Your task to perform on an android device: Set the phone to "Do not disturb". Image 0: 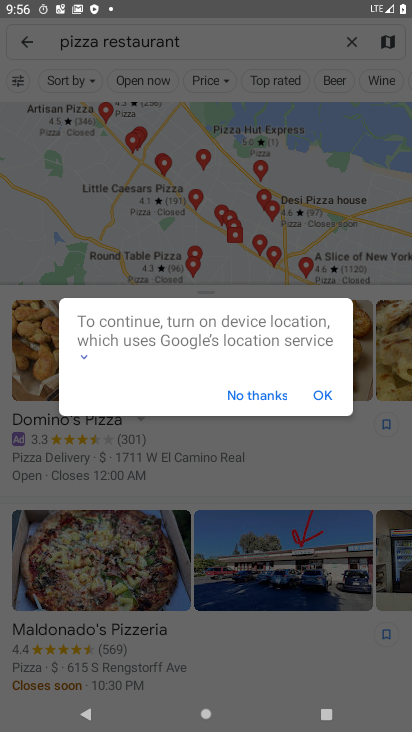
Step 0: press home button
Your task to perform on an android device: Set the phone to "Do not disturb". Image 1: 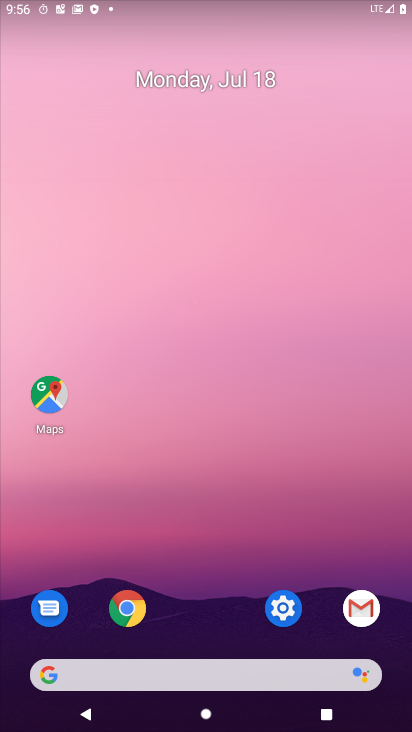
Step 1: click (293, 592)
Your task to perform on an android device: Set the phone to "Do not disturb". Image 2: 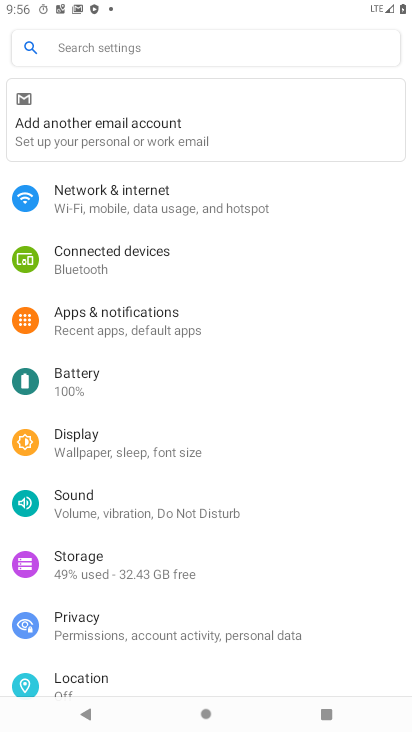
Step 2: click (75, 52)
Your task to perform on an android device: Set the phone to "Do not disturb". Image 3: 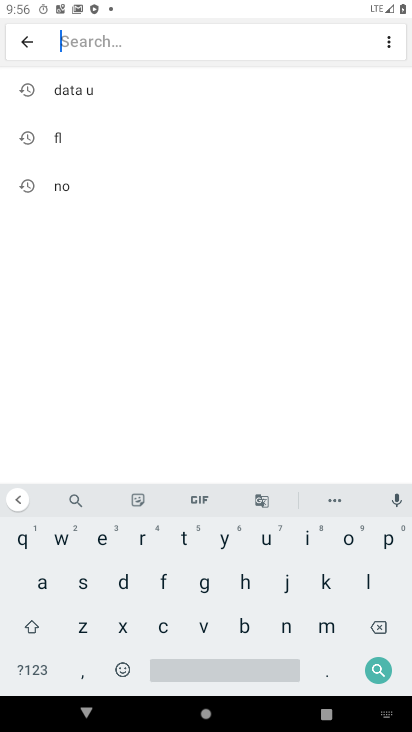
Step 3: click (118, 583)
Your task to perform on an android device: Set the phone to "Do not disturb". Image 4: 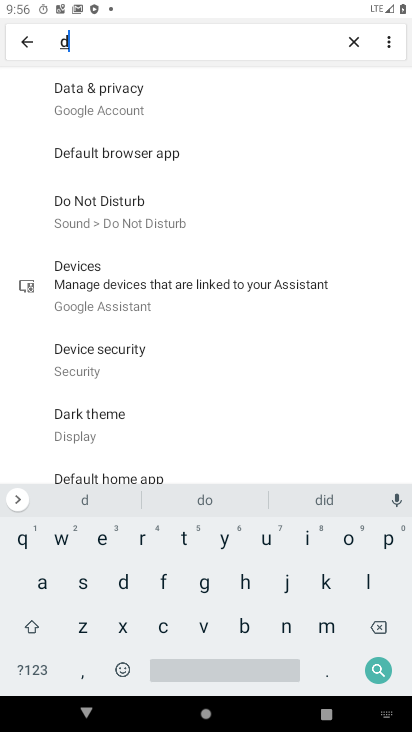
Step 4: click (289, 627)
Your task to perform on an android device: Set the phone to "Do not disturb". Image 5: 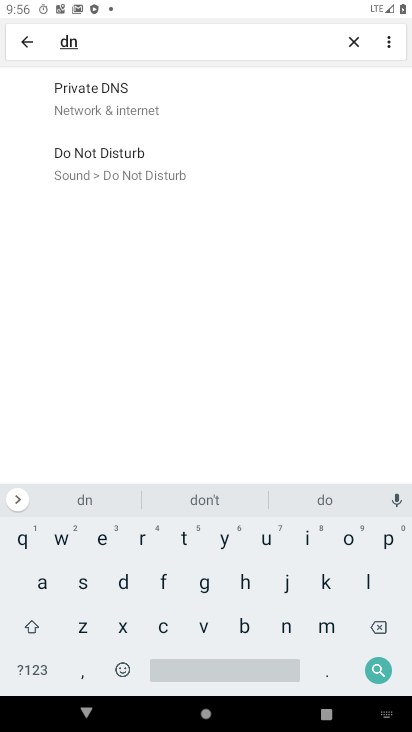
Step 5: click (117, 165)
Your task to perform on an android device: Set the phone to "Do not disturb". Image 6: 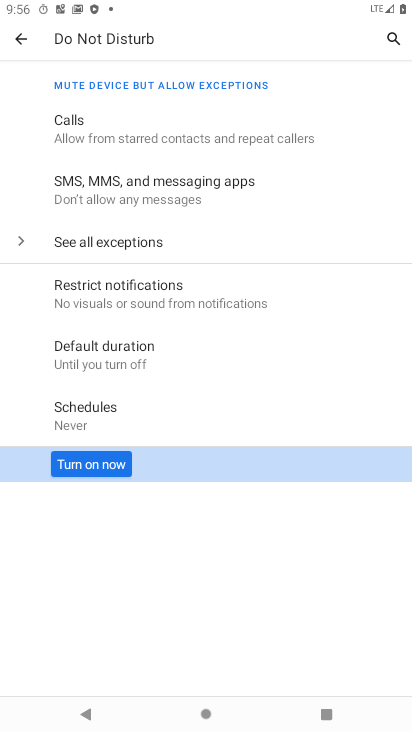
Step 6: click (77, 466)
Your task to perform on an android device: Set the phone to "Do not disturb". Image 7: 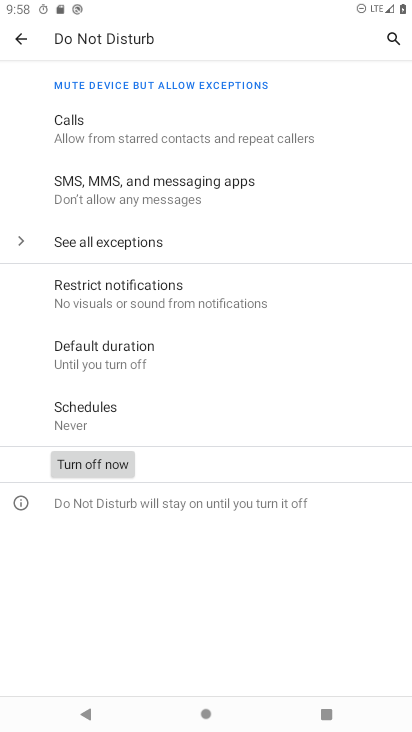
Step 7: task complete